Your task to perform on an android device: Go to location settings Image 0: 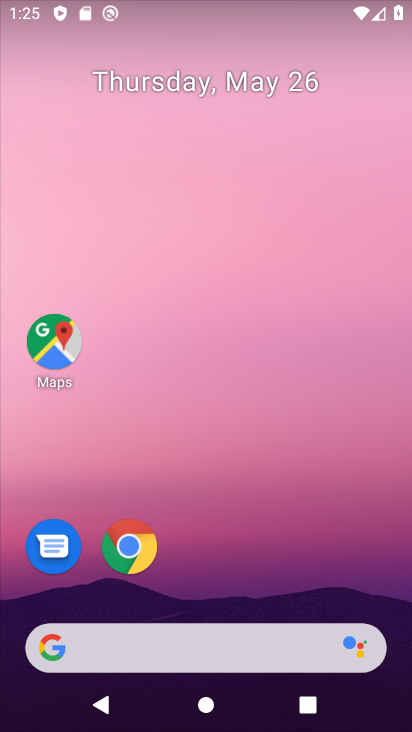
Step 0: drag from (201, 608) to (297, 119)
Your task to perform on an android device: Go to location settings Image 1: 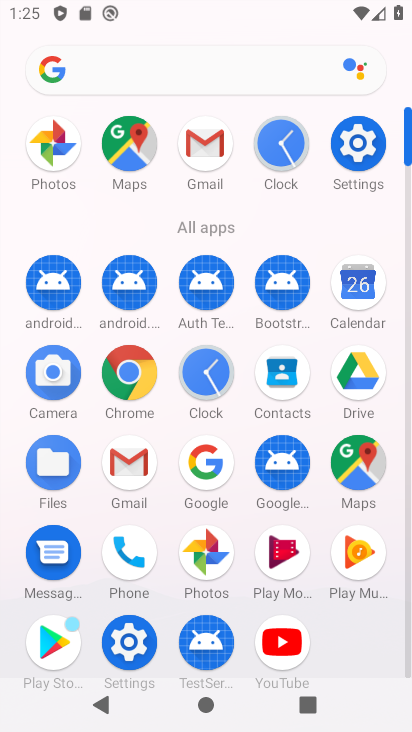
Step 1: click (122, 654)
Your task to perform on an android device: Go to location settings Image 2: 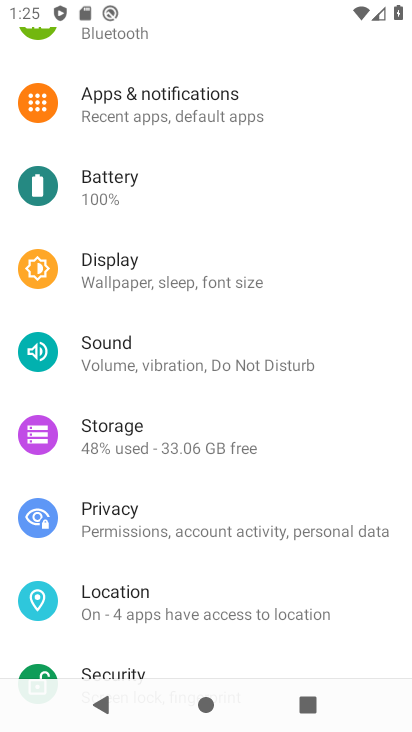
Step 2: click (150, 615)
Your task to perform on an android device: Go to location settings Image 3: 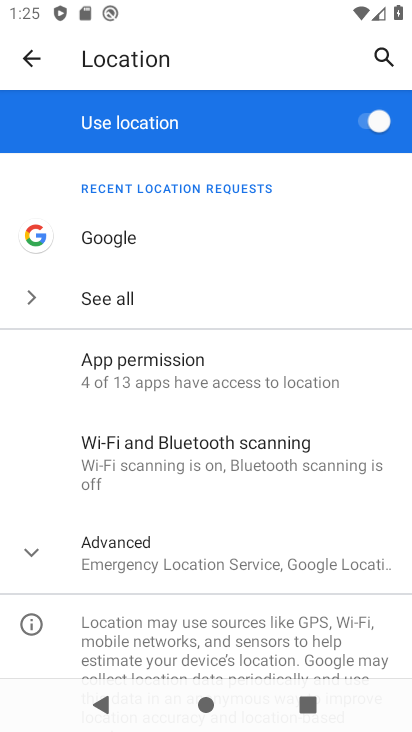
Step 3: task complete